Your task to perform on an android device: Add "dell xps" to the cart on costco Image 0: 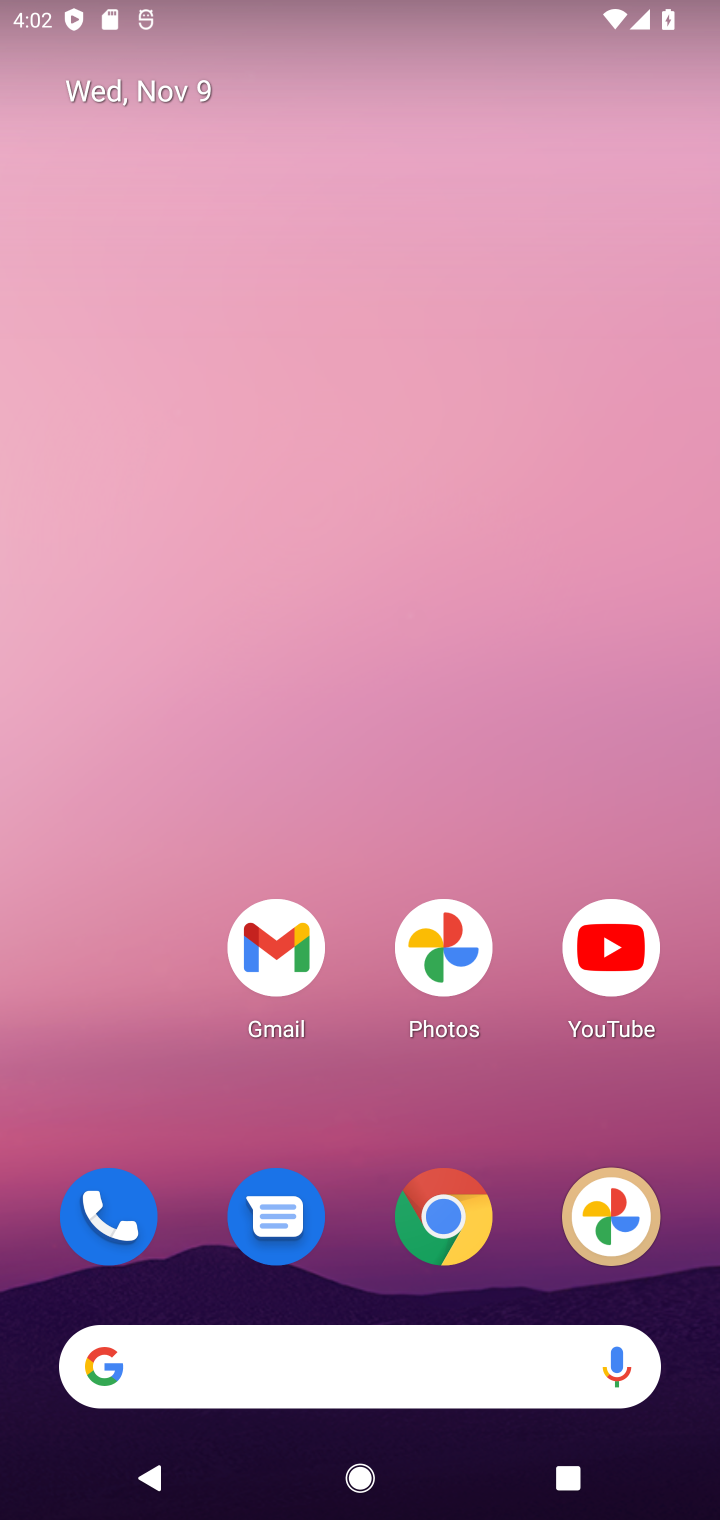
Step 0: drag from (362, 945) to (341, 306)
Your task to perform on an android device: Add "dell xps" to the cart on costco Image 1: 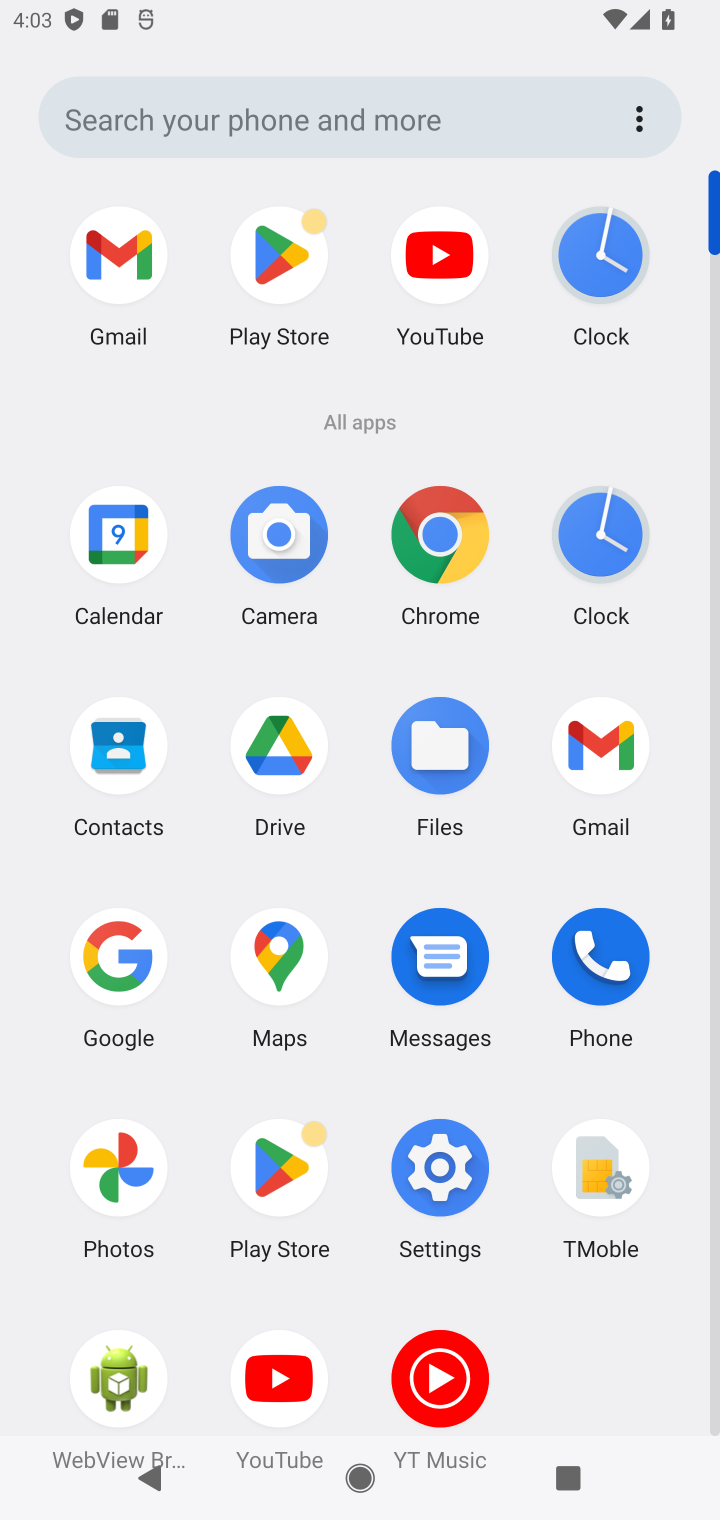
Step 1: click (450, 539)
Your task to perform on an android device: Add "dell xps" to the cart on costco Image 2: 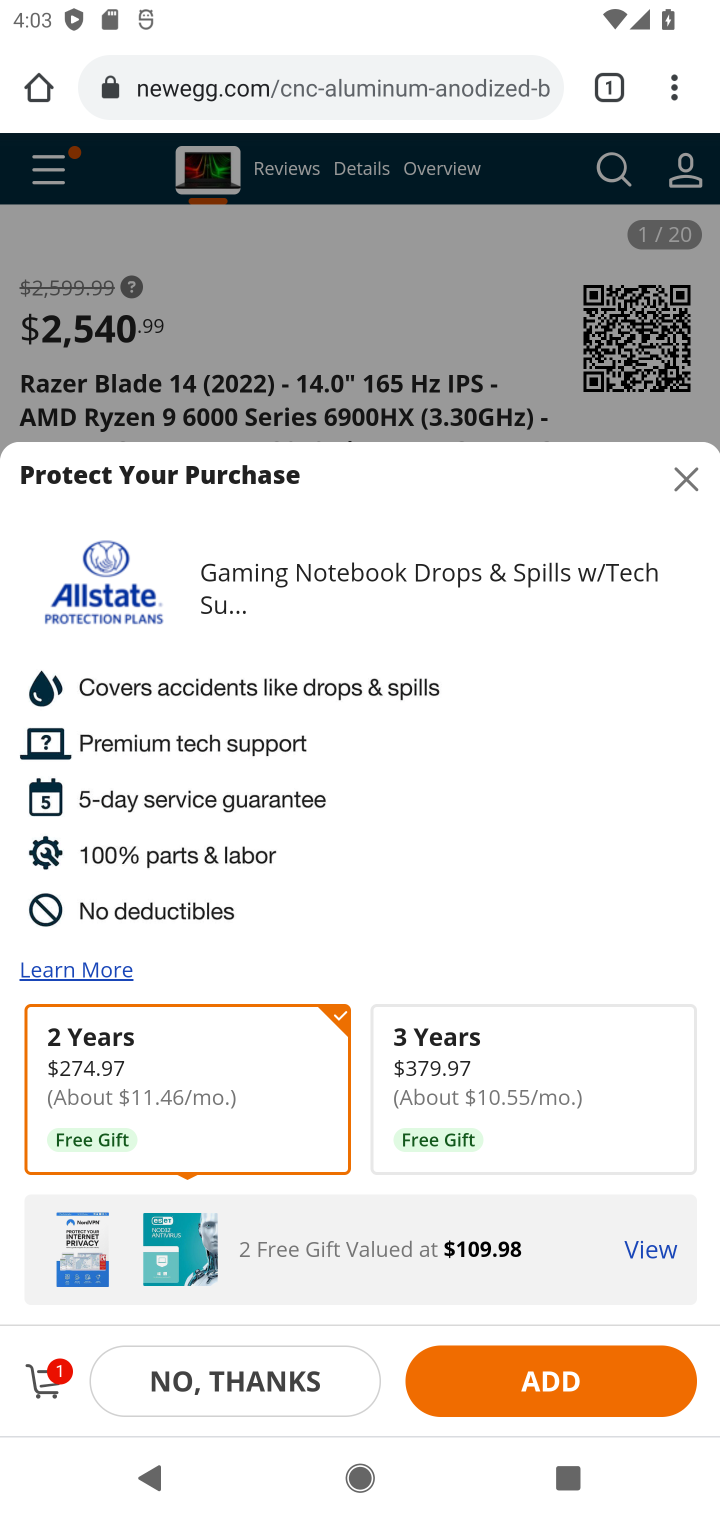
Step 2: click (349, 78)
Your task to perform on an android device: Add "dell xps" to the cart on costco Image 3: 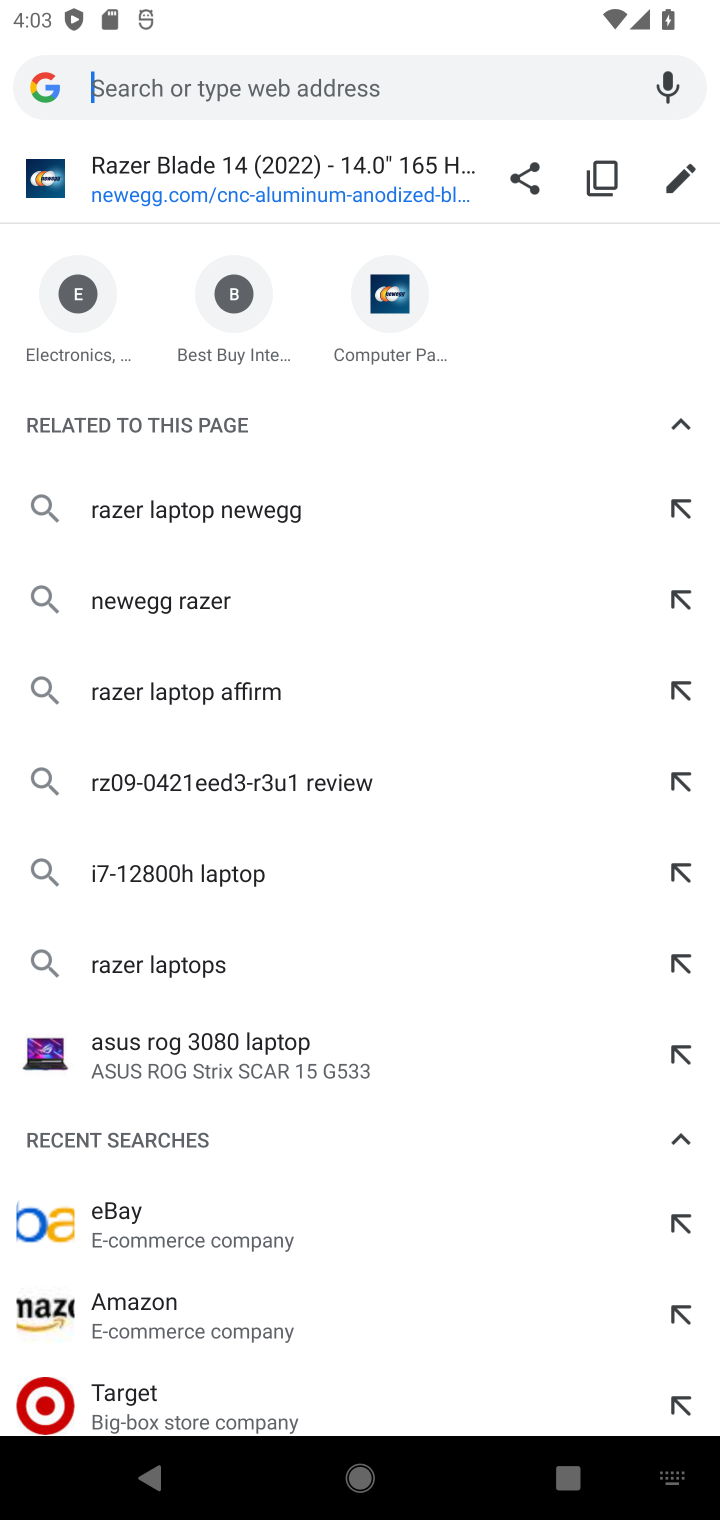
Step 3: type "costco.com"
Your task to perform on an android device: Add "dell xps" to the cart on costco Image 4: 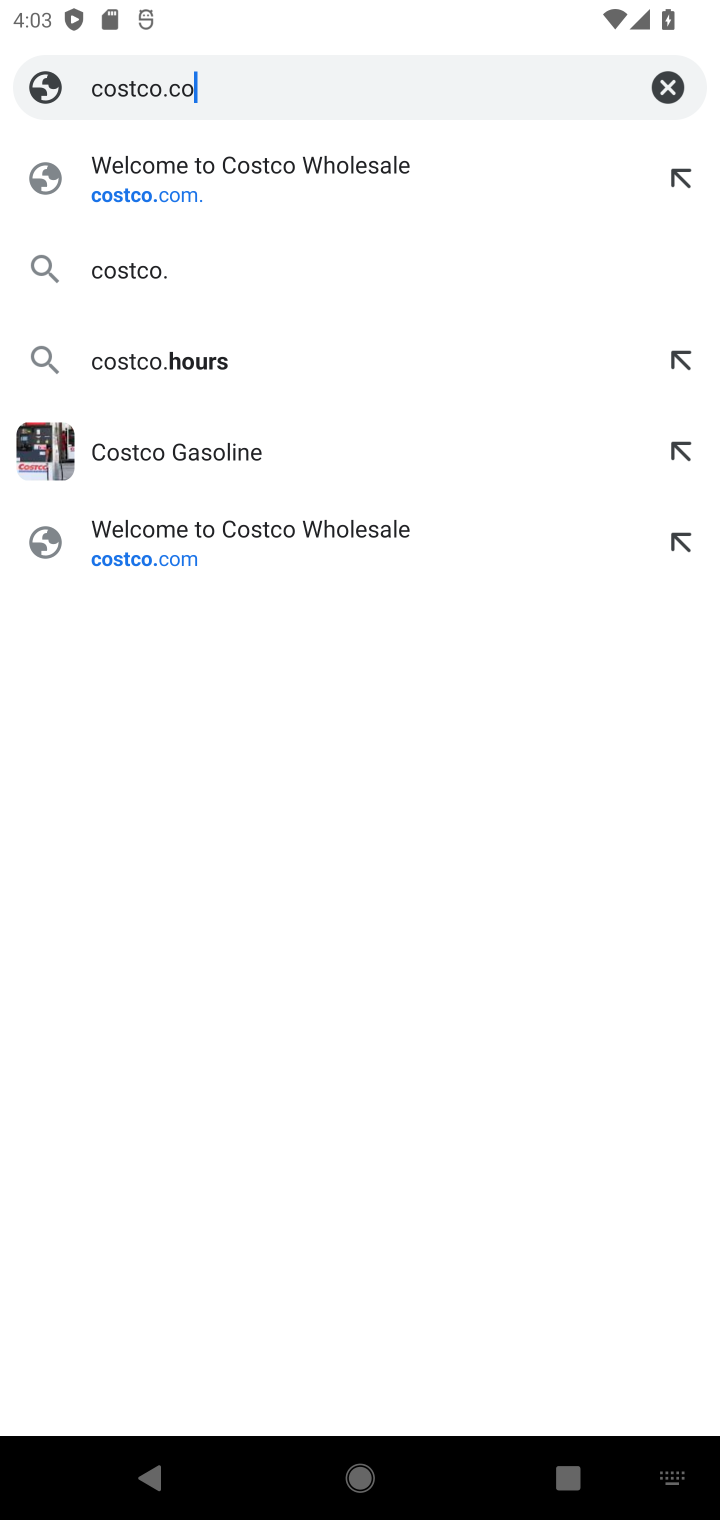
Step 4: press enter
Your task to perform on an android device: Add "dell xps" to the cart on costco Image 5: 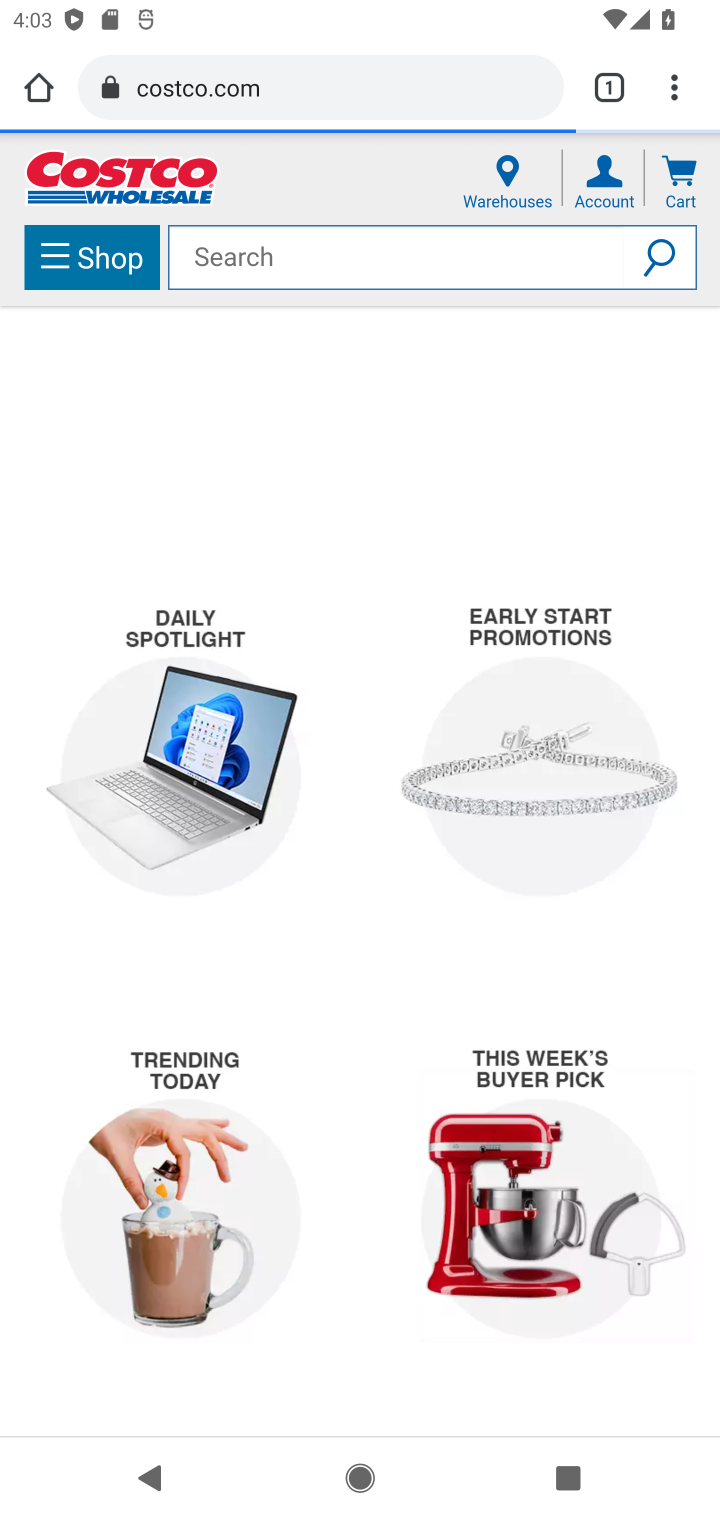
Step 5: click (458, 269)
Your task to perform on an android device: Add "dell xps" to the cart on costco Image 6: 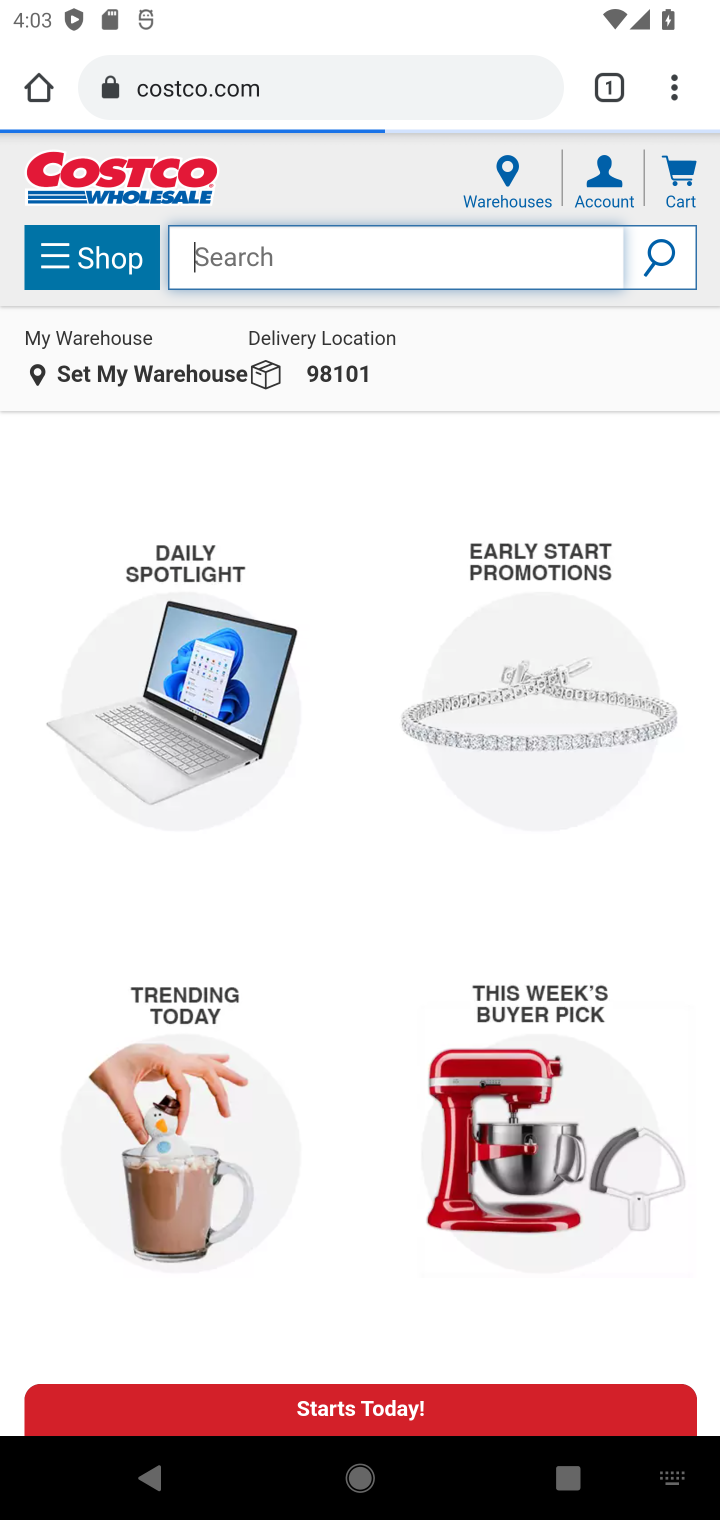
Step 6: type "dell xps"
Your task to perform on an android device: Add "dell xps" to the cart on costco Image 7: 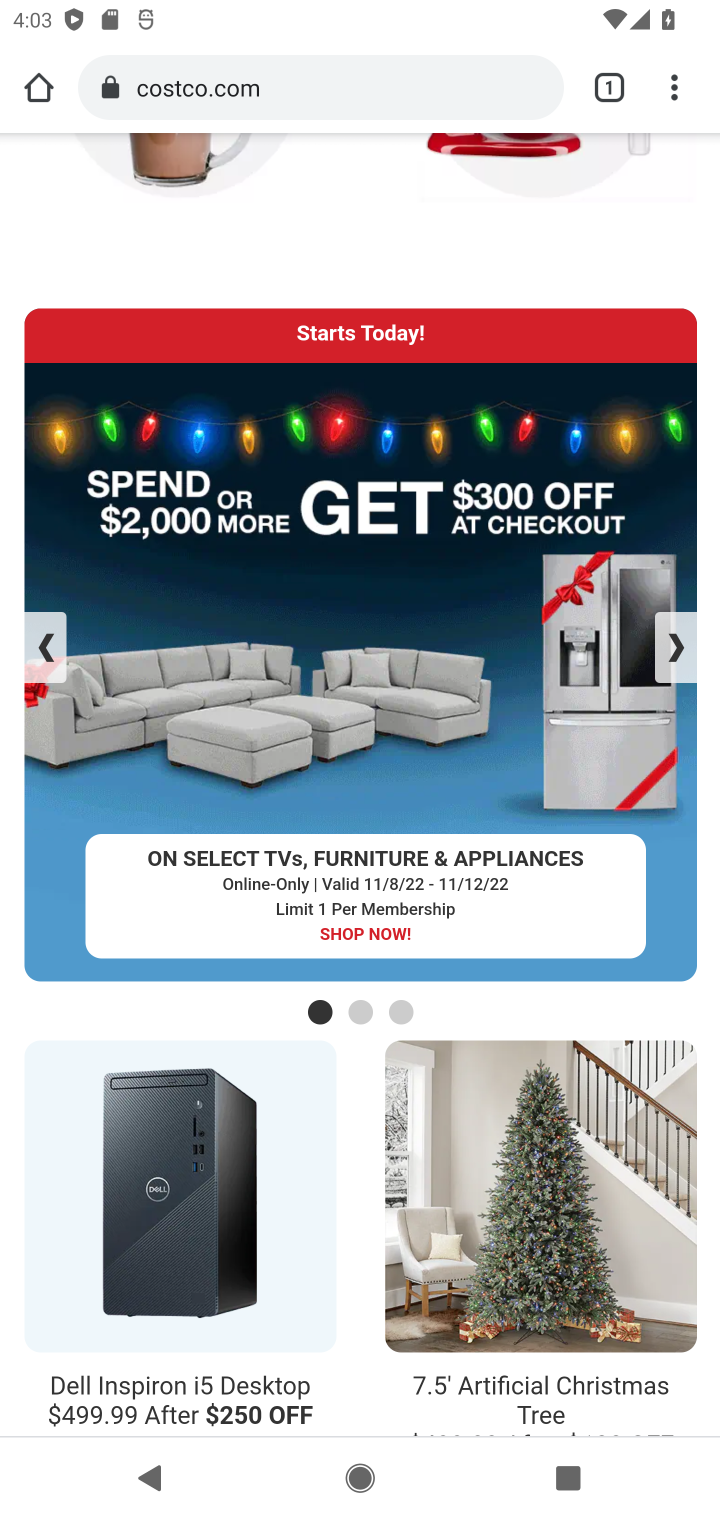
Step 7: drag from (519, 549) to (478, 1207)
Your task to perform on an android device: Add "dell xps" to the cart on costco Image 8: 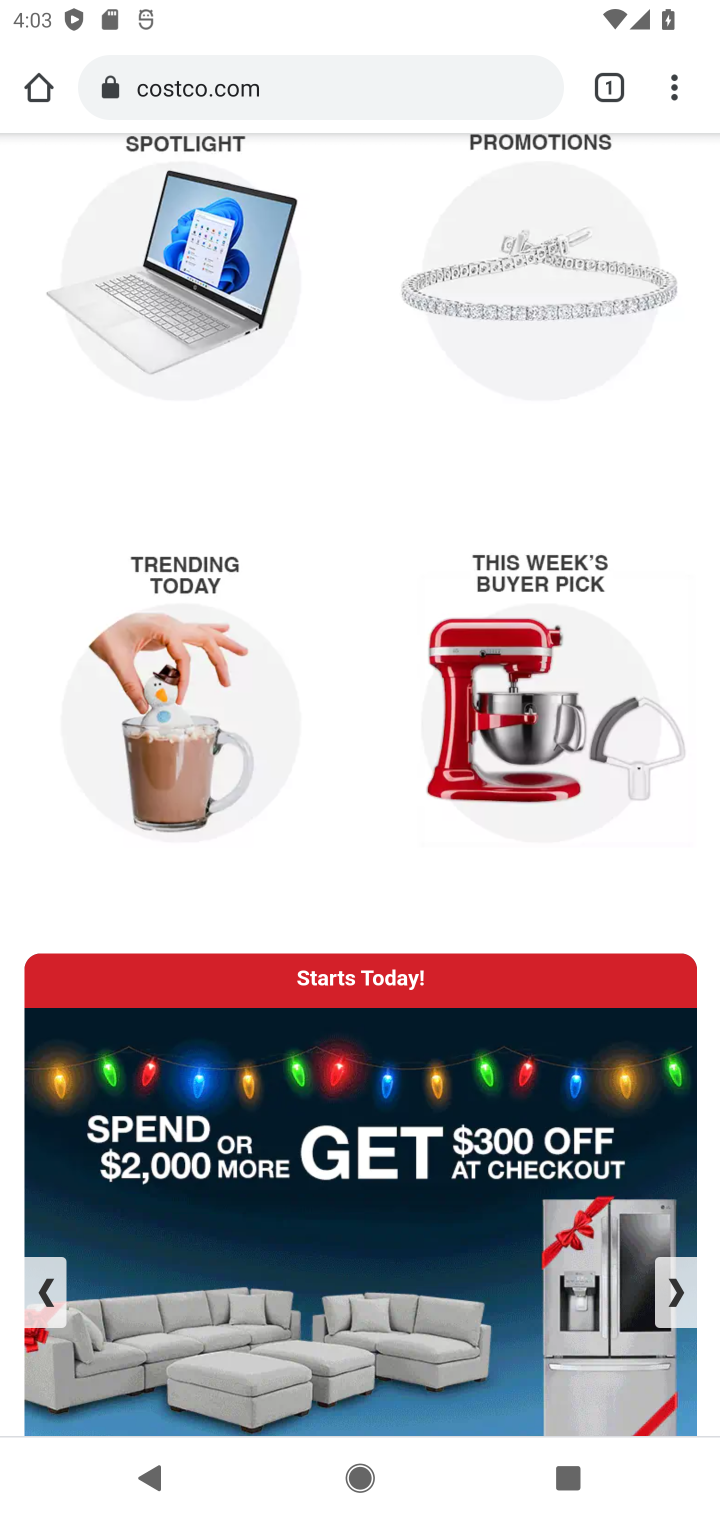
Step 8: drag from (366, 276) to (311, 1187)
Your task to perform on an android device: Add "dell xps" to the cart on costco Image 9: 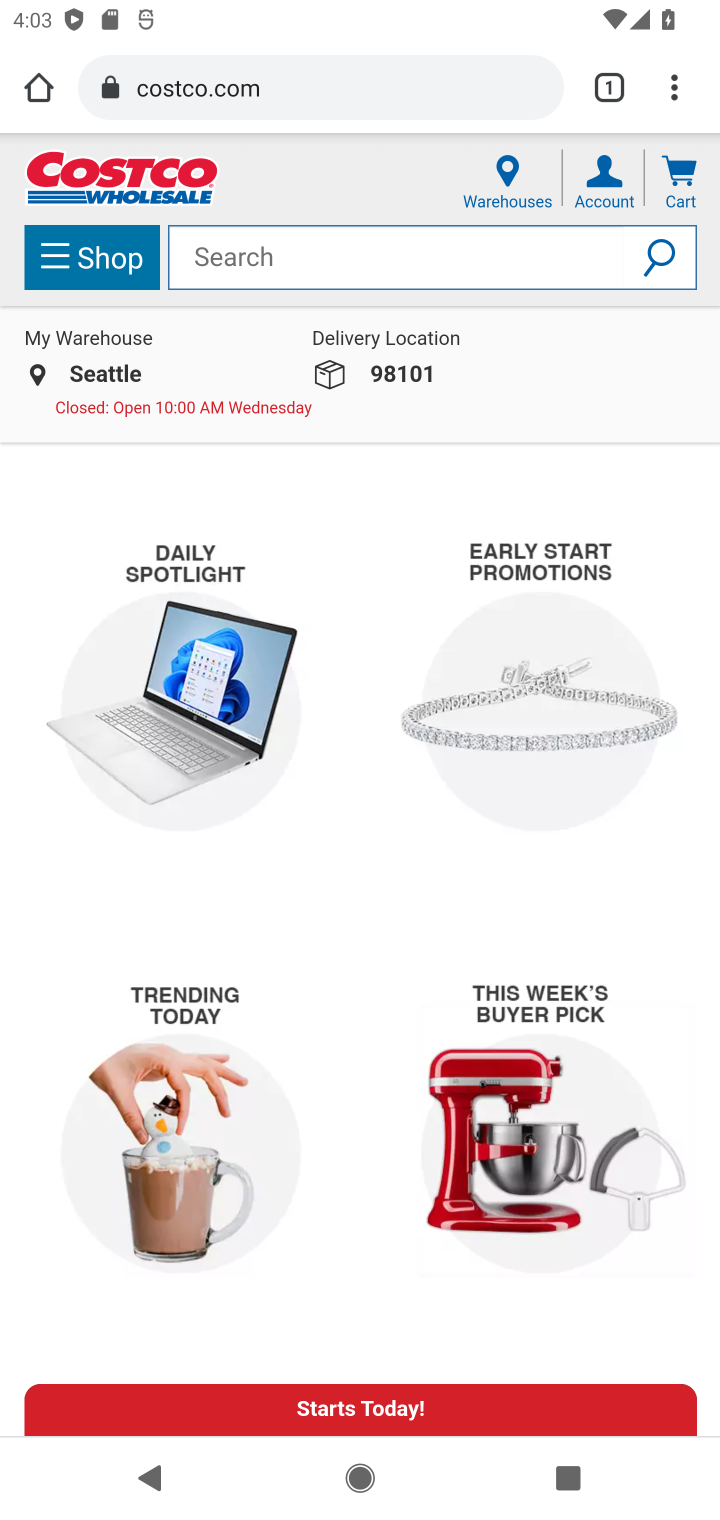
Step 9: drag from (336, 775) to (403, 154)
Your task to perform on an android device: Add "dell xps" to the cart on costco Image 10: 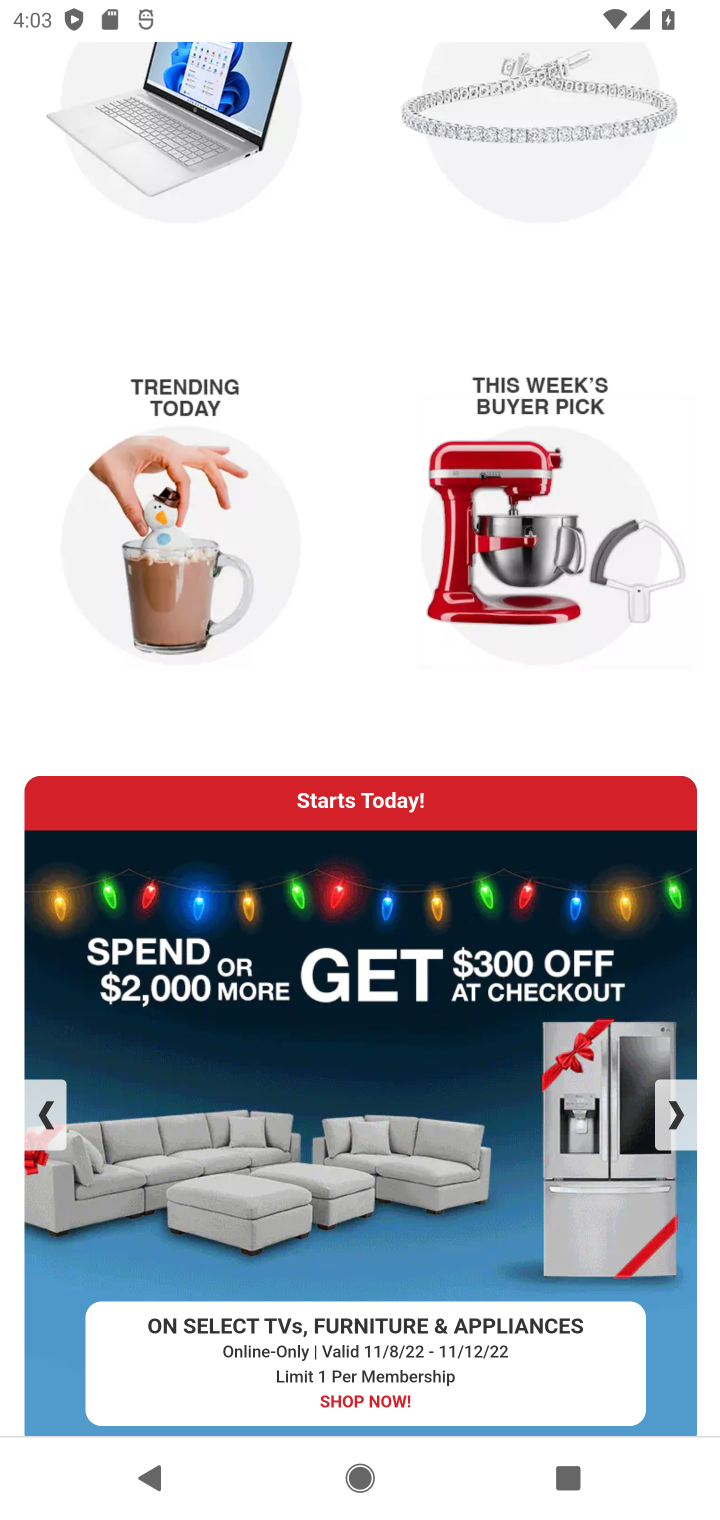
Step 10: drag from (416, 443) to (353, 1380)
Your task to perform on an android device: Add "dell xps" to the cart on costco Image 11: 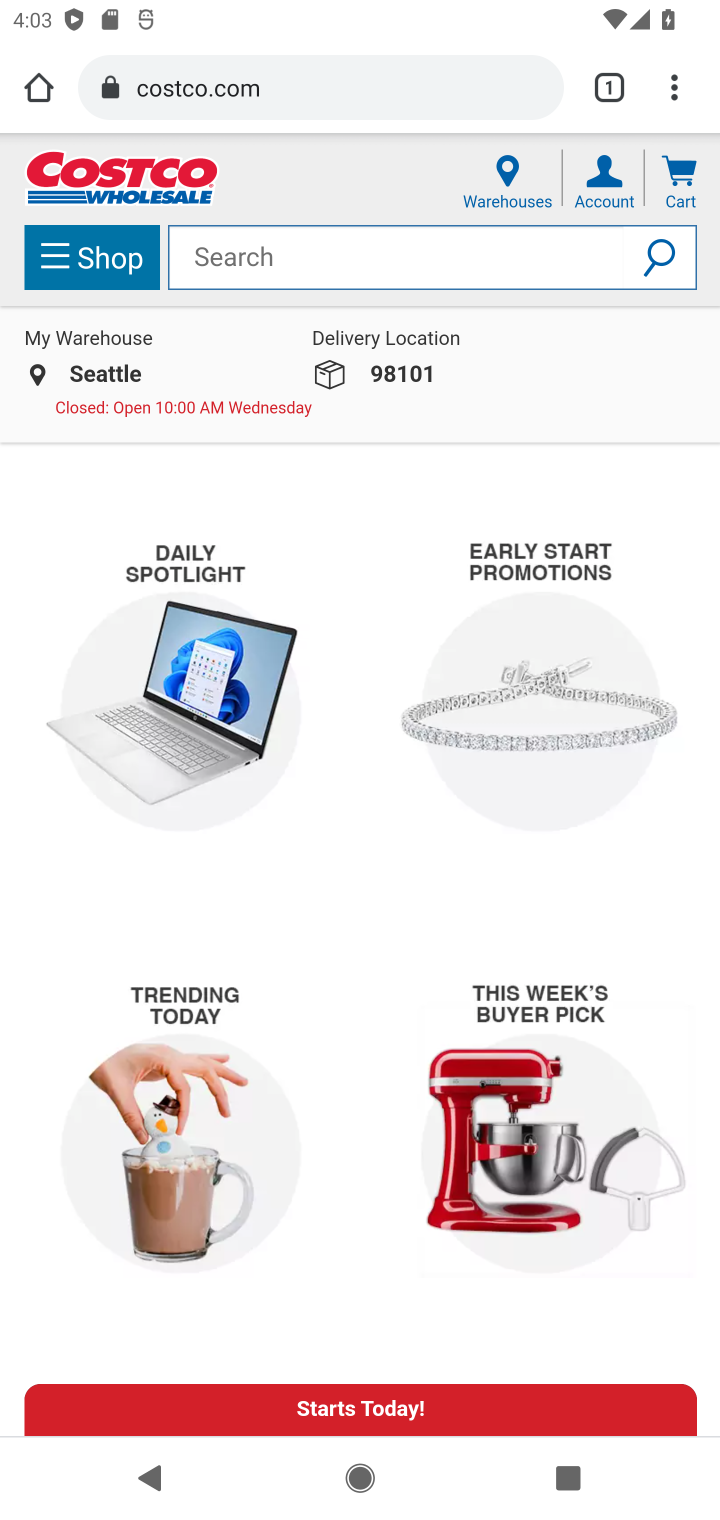
Step 11: click (423, 262)
Your task to perform on an android device: Add "dell xps" to the cart on costco Image 12: 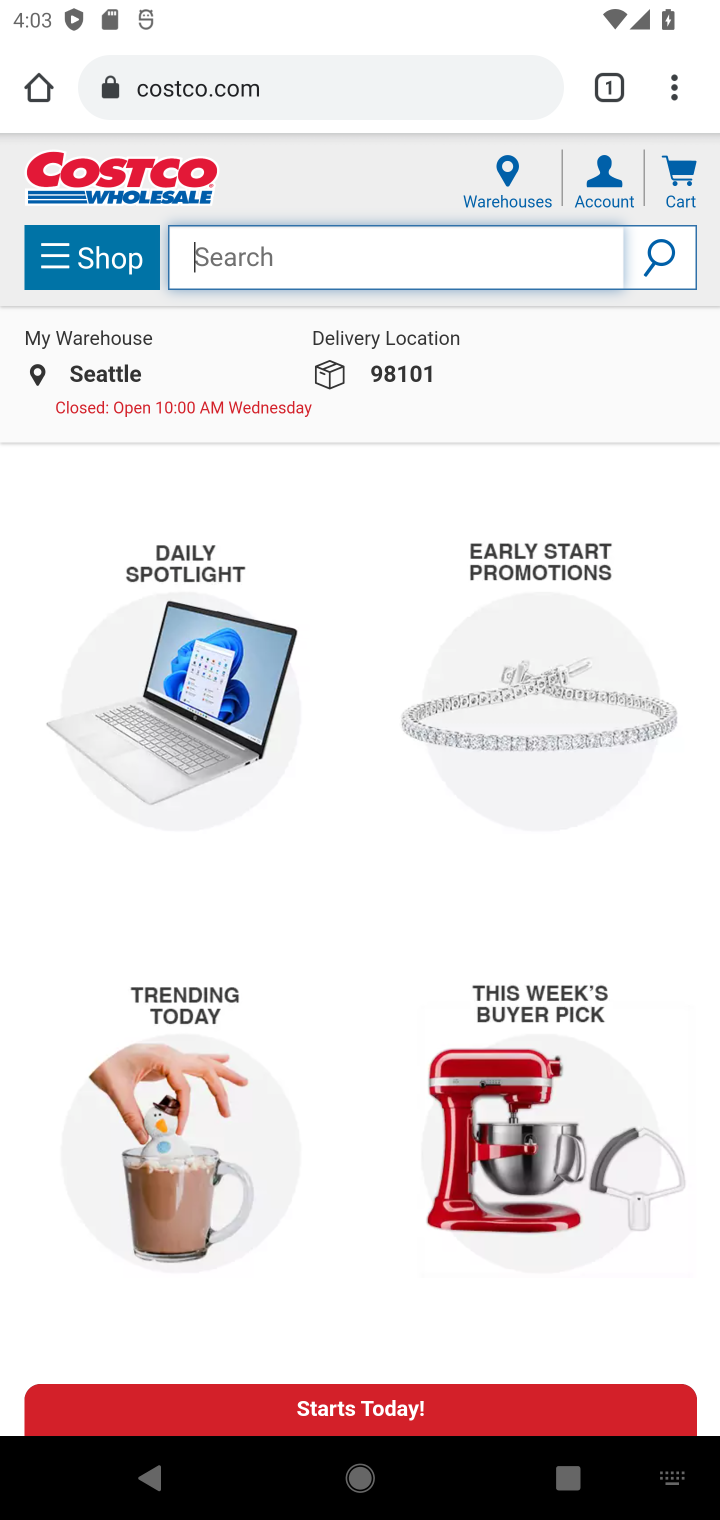
Step 12: type "dell xps"
Your task to perform on an android device: Add "dell xps" to the cart on costco Image 13: 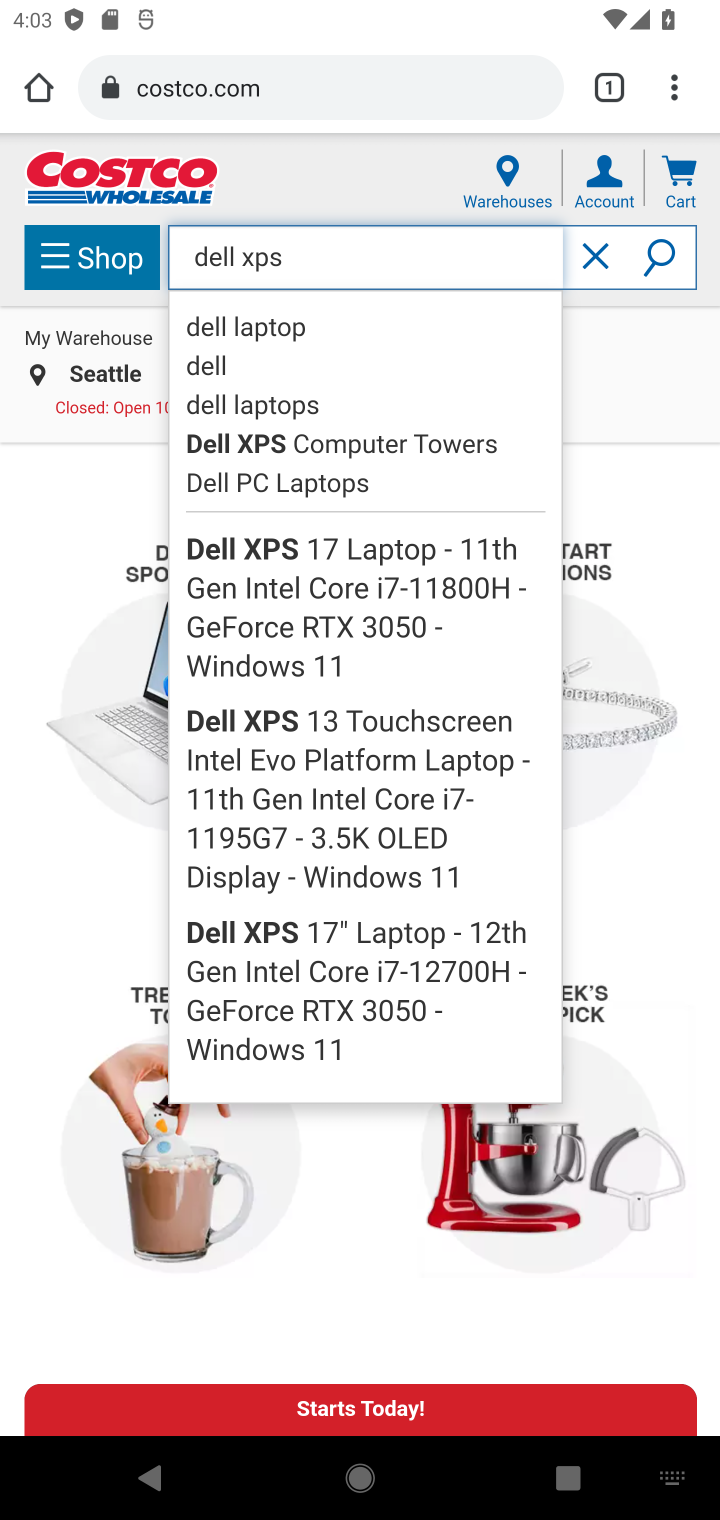
Step 13: press enter
Your task to perform on an android device: Add "dell xps" to the cart on costco Image 14: 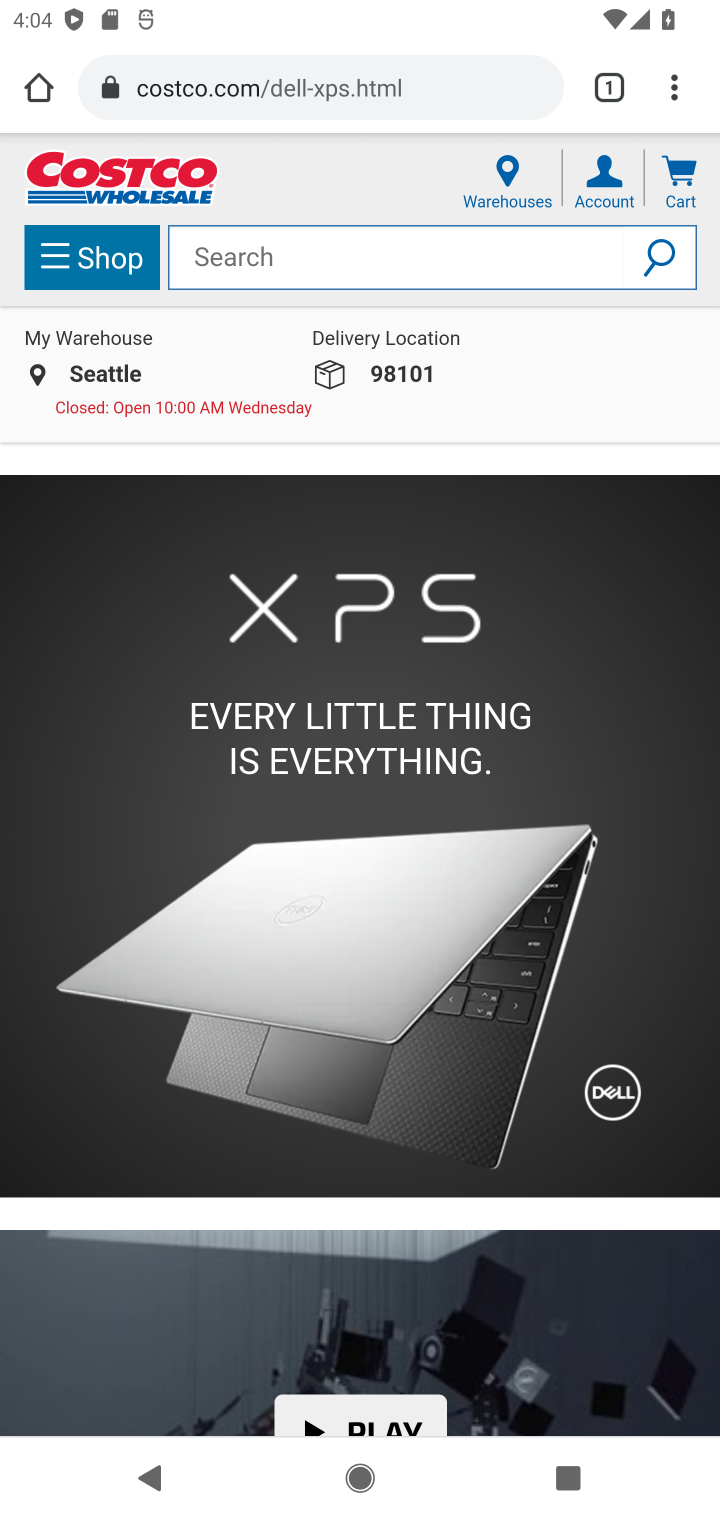
Step 14: click (402, 931)
Your task to perform on an android device: Add "dell xps" to the cart on costco Image 15: 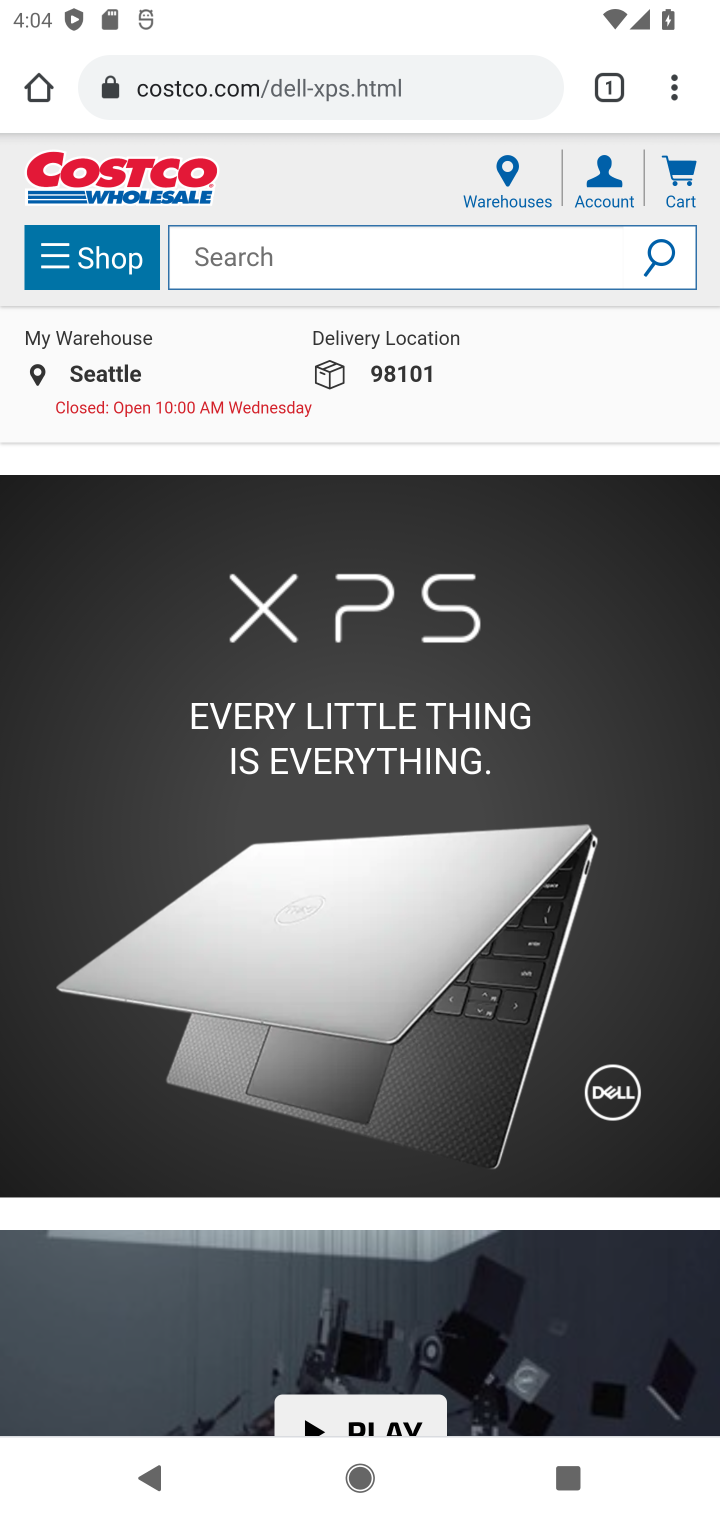
Step 15: drag from (491, 1077) to (542, 122)
Your task to perform on an android device: Add "dell xps" to the cart on costco Image 16: 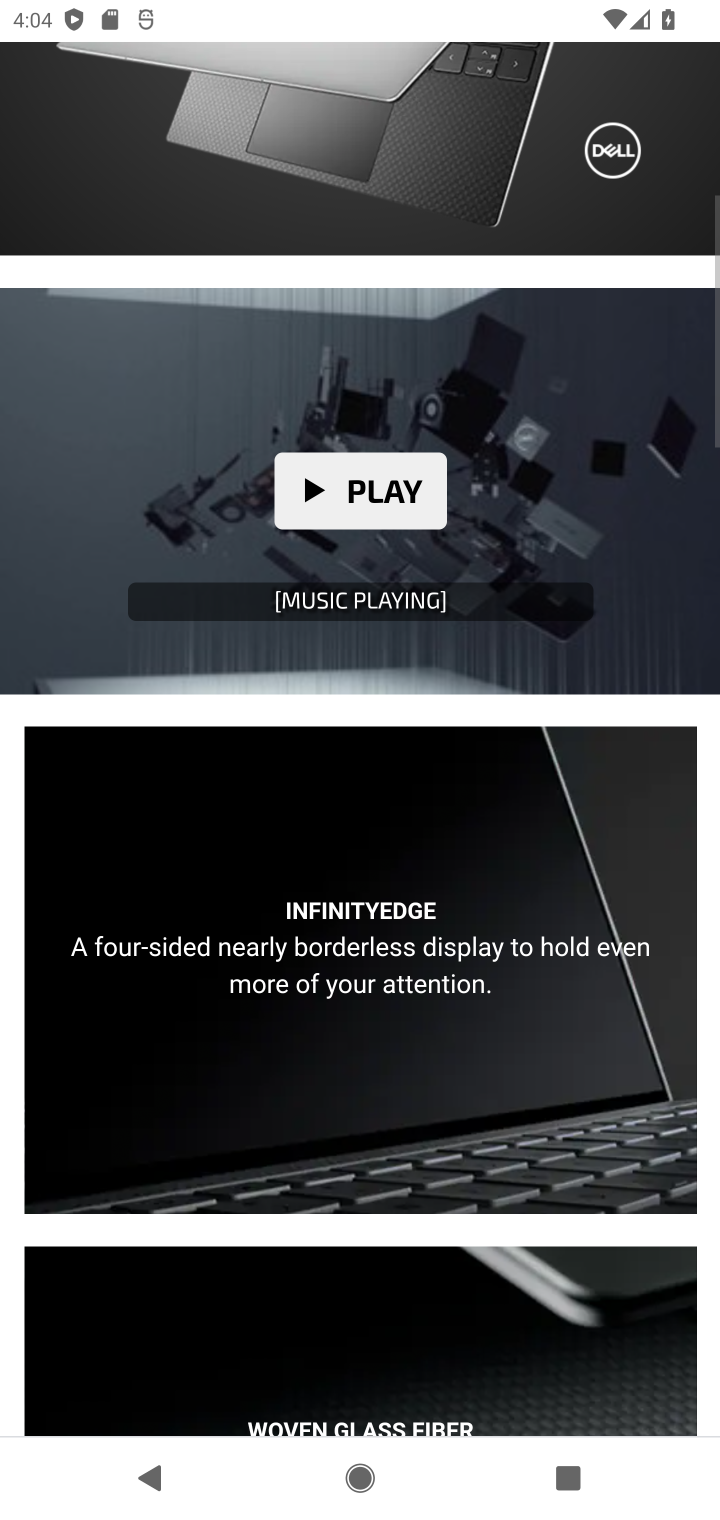
Step 16: drag from (430, 1306) to (406, 138)
Your task to perform on an android device: Add "dell xps" to the cart on costco Image 17: 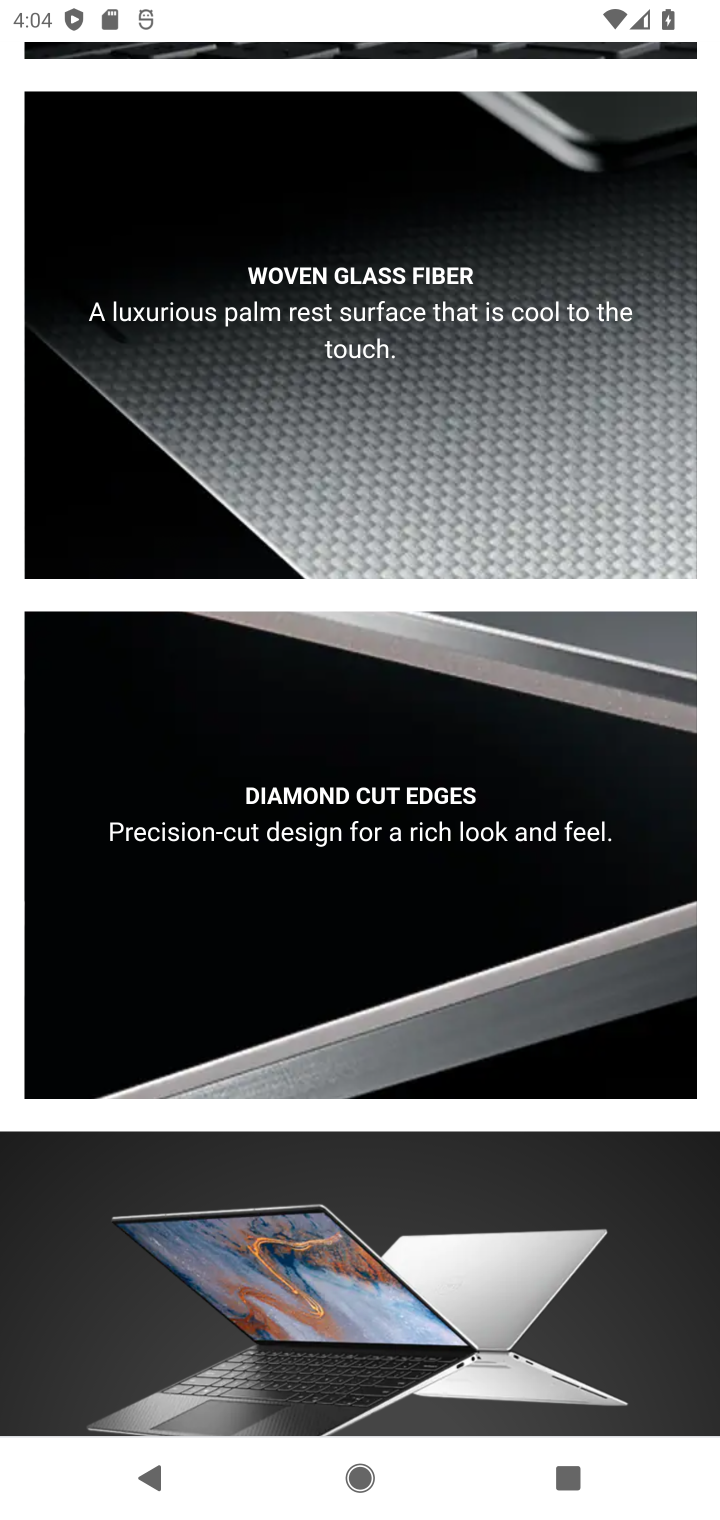
Step 17: drag from (426, 999) to (467, 410)
Your task to perform on an android device: Add "dell xps" to the cart on costco Image 18: 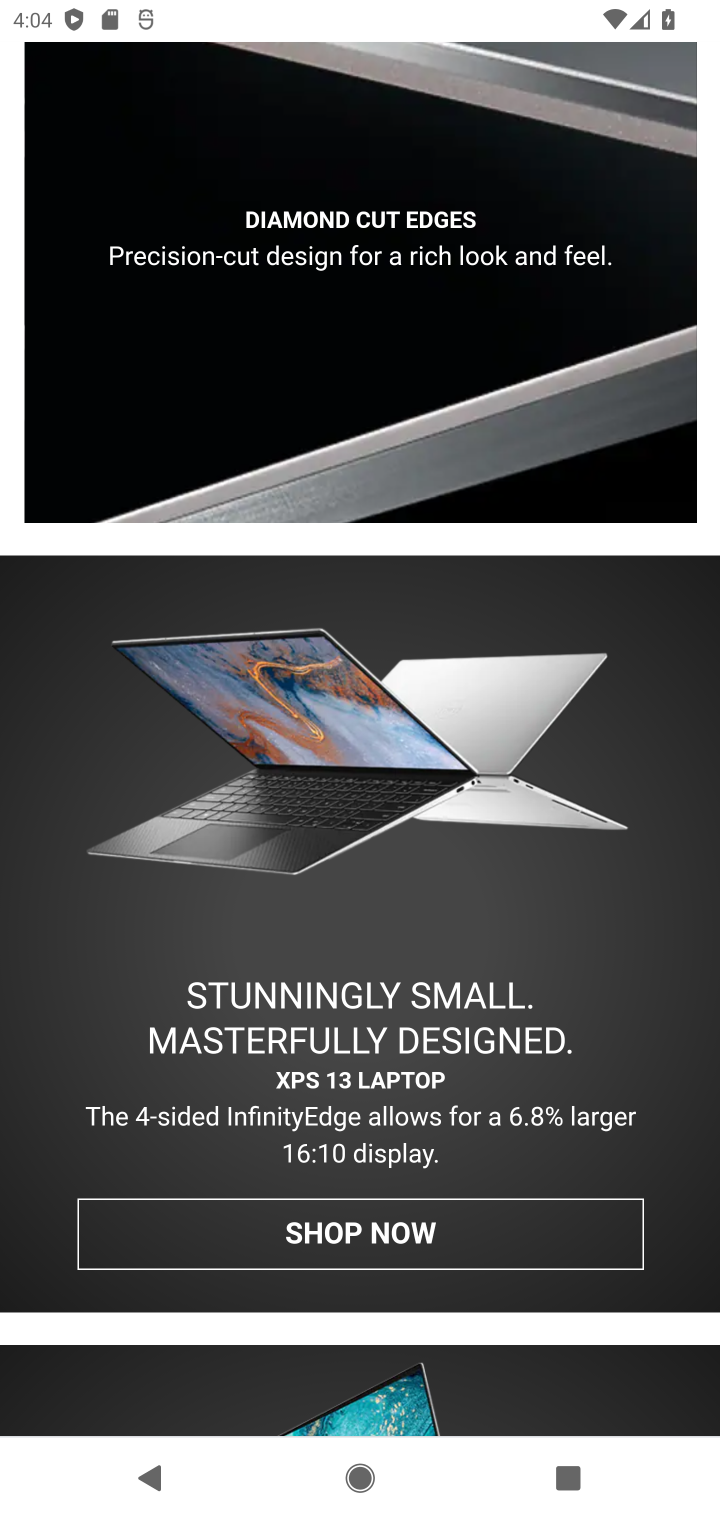
Step 18: click (447, 1232)
Your task to perform on an android device: Add "dell xps" to the cart on costco Image 19: 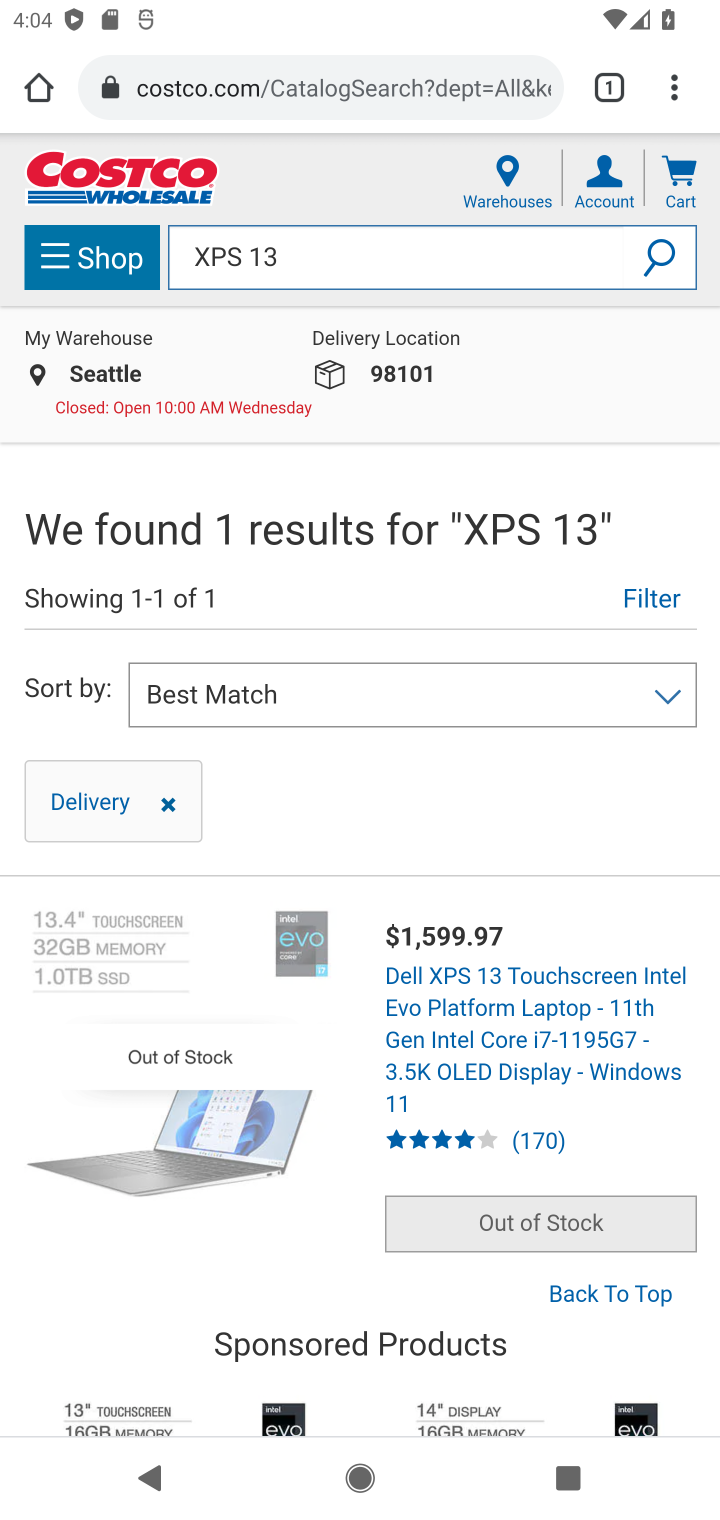
Step 19: click (496, 1017)
Your task to perform on an android device: Add "dell xps" to the cart on costco Image 20: 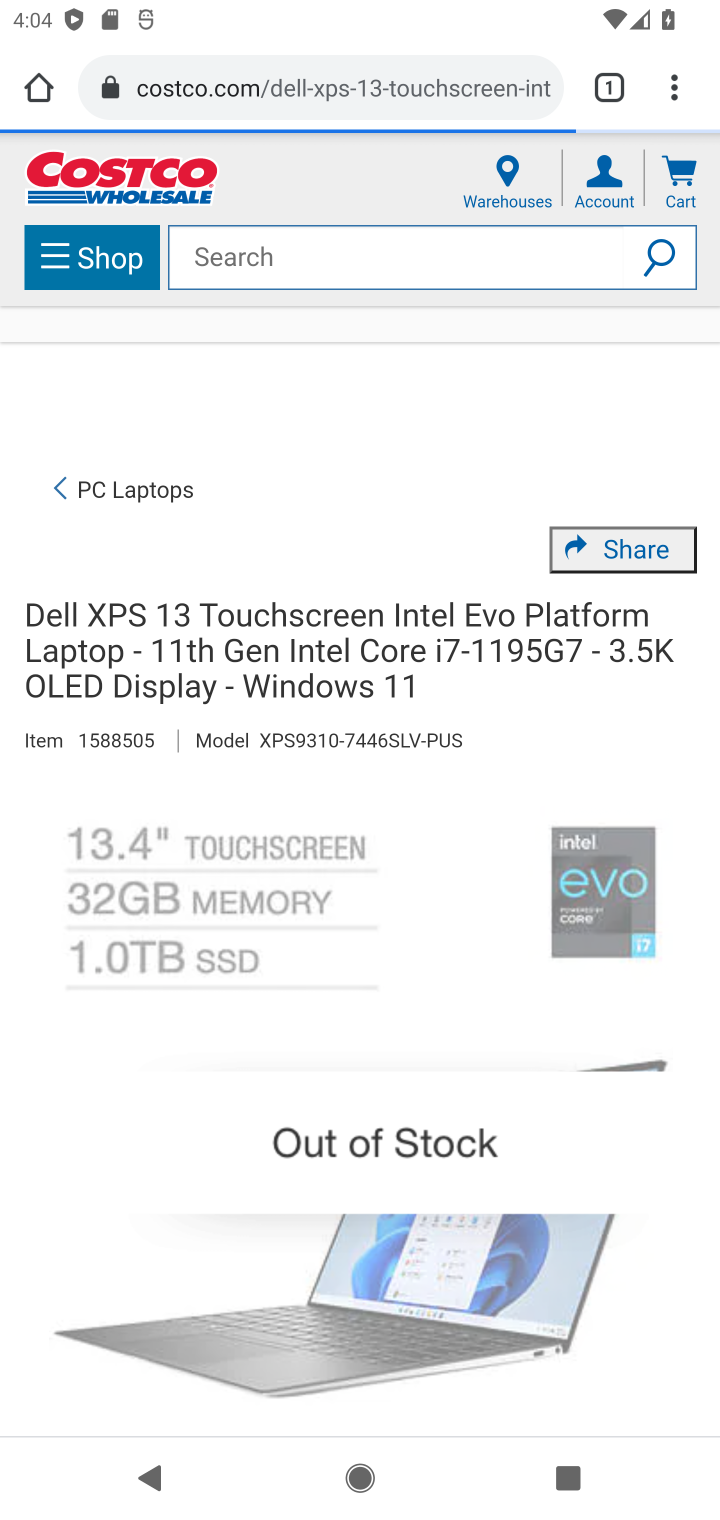
Step 20: task complete